Your task to perform on an android device: add a label to a message in the gmail app Image 0: 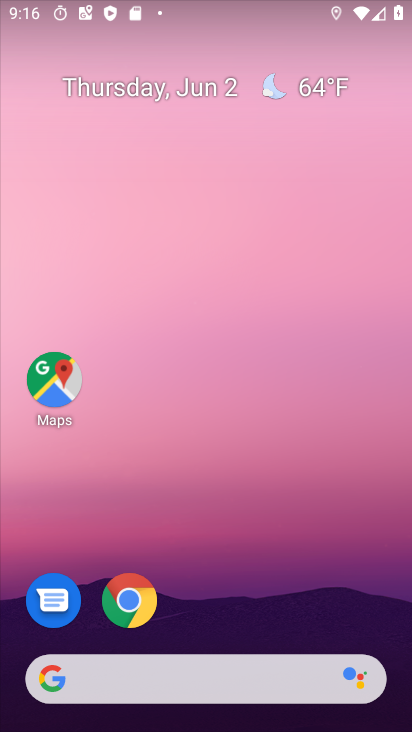
Step 0: drag from (217, 613) to (177, 99)
Your task to perform on an android device: add a label to a message in the gmail app Image 1: 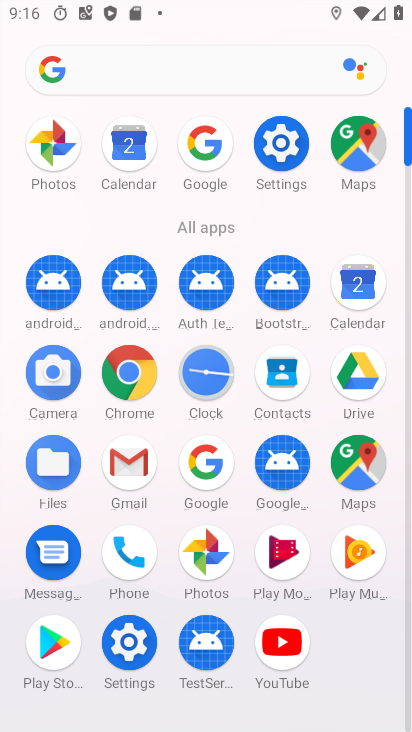
Step 1: click (128, 461)
Your task to perform on an android device: add a label to a message in the gmail app Image 2: 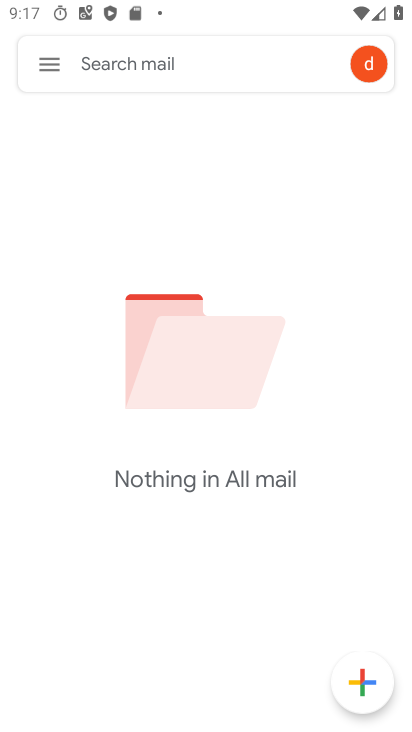
Step 2: task complete